Your task to perform on an android device: Open Google Maps Image 0: 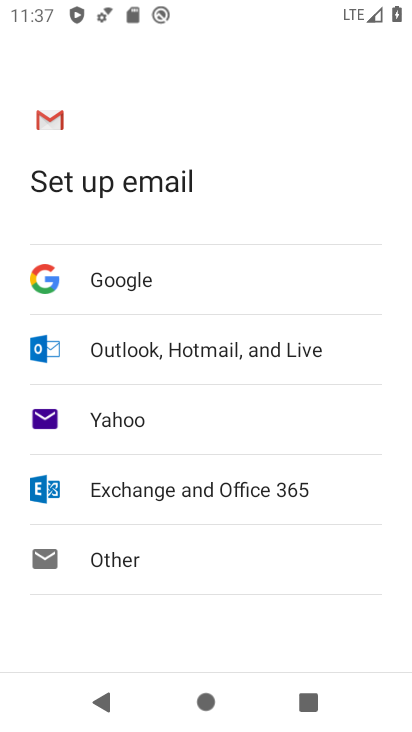
Step 0: press home button
Your task to perform on an android device: Open Google Maps Image 1: 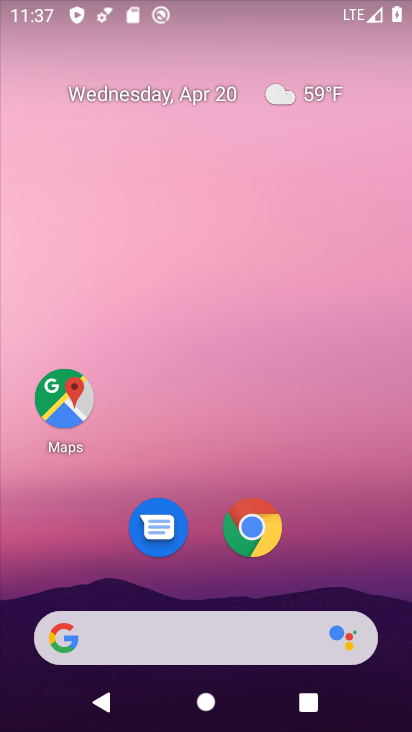
Step 1: drag from (346, 488) to (356, 182)
Your task to perform on an android device: Open Google Maps Image 2: 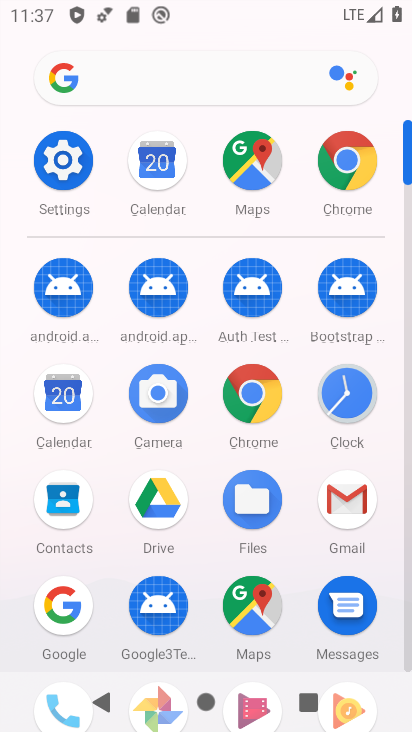
Step 2: click (238, 590)
Your task to perform on an android device: Open Google Maps Image 3: 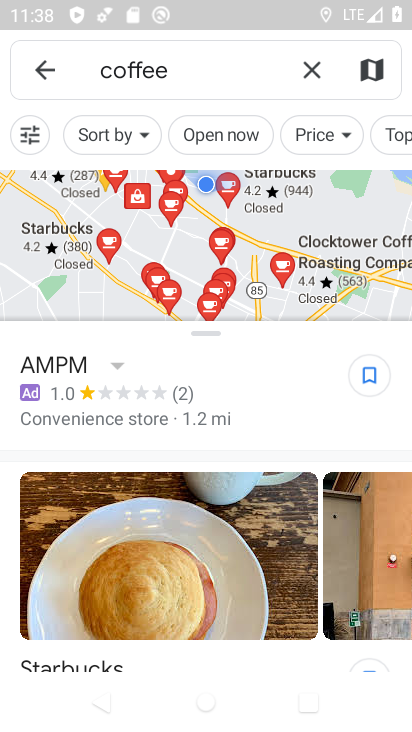
Step 3: task complete